Your task to perform on an android device: change keyboard looks Image 0: 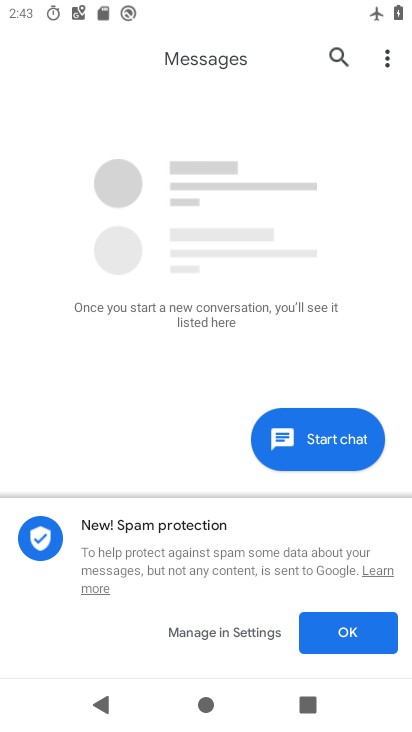
Step 0: press home button
Your task to perform on an android device: change keyboard looks Image 1: 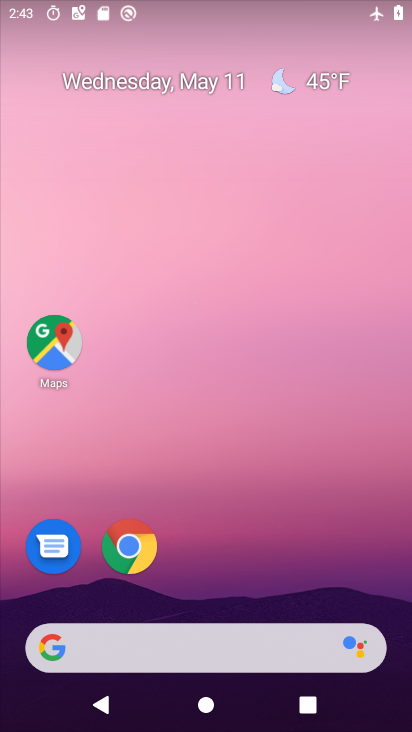
Step 1: drag from (214, 612) to (250, 16)
Your task to perform on an android device: change keyboard looks Image 2: 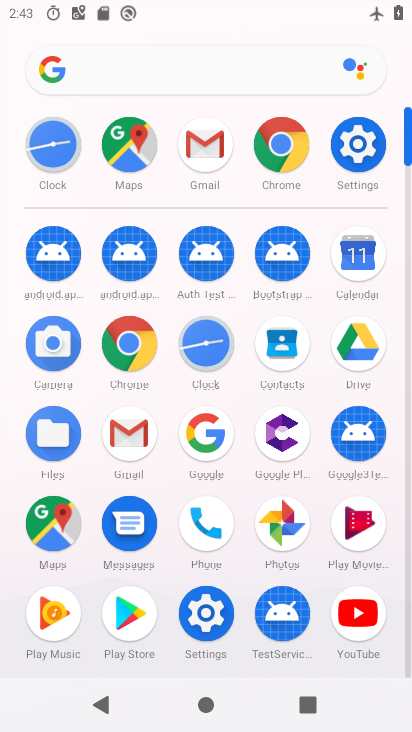
Step 2: click (205, 607)
Your task to perform on an android device: change keyboard looks Image 3: 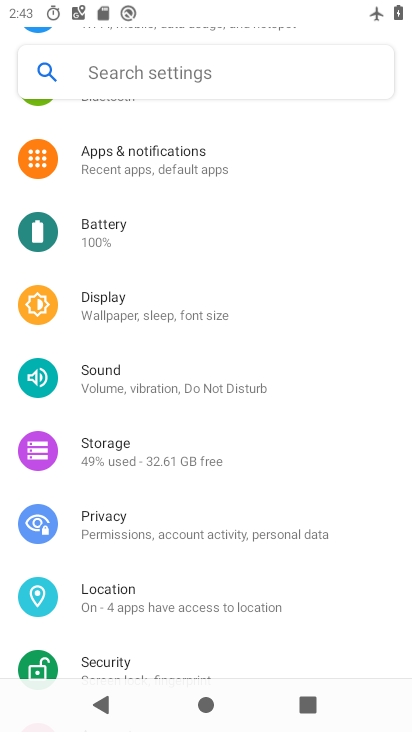
Step 3: drag from (180, 612) to (221, 42)
Your task to perform on an android device: change keyboard looks Image 4: 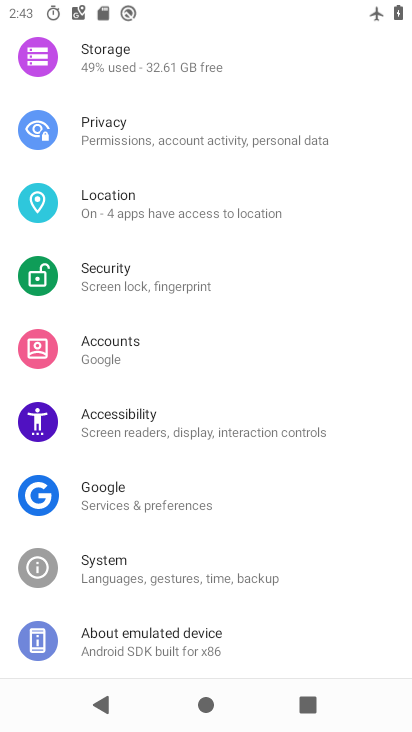
Step 4: click (135, 567)
Your task to perform on an android device: change keyboard looks Image 5: 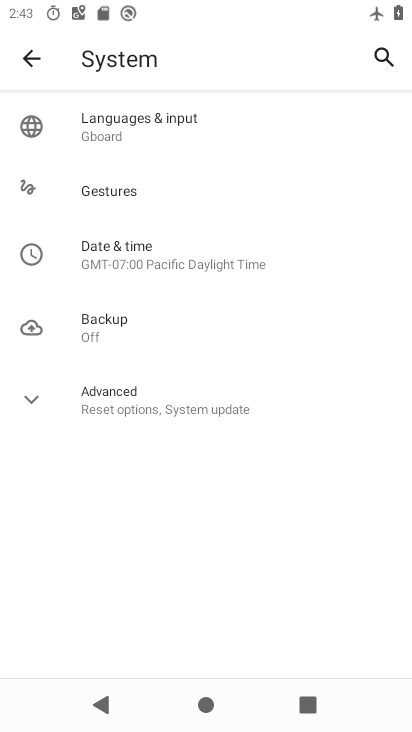
Step 5: click (150, 132)
Your task to perform on an android device: change keyboard looks Image 6: 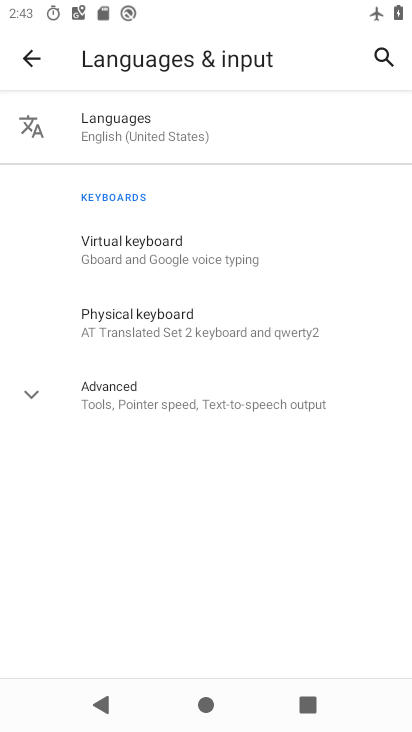
Step 6: click (108, 266)
Your task to perform on an android device: change keyboard looks Image 7: 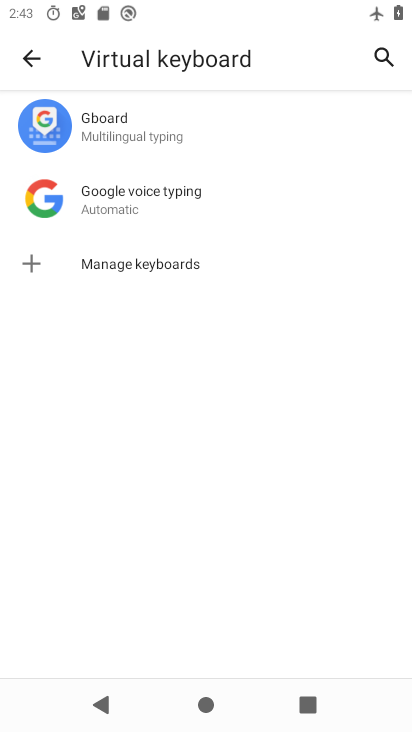
Step 7: click (131, 143)
Your task to perform on an android device: change keyboard looks Image 8: 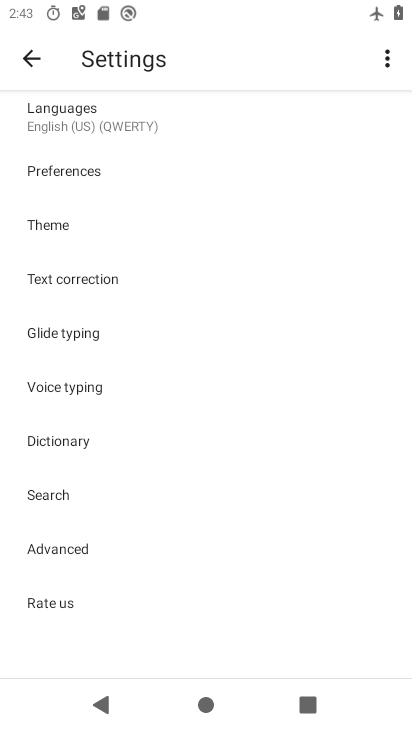
Step 8: click (70, 211)
Your task to perform on an android device: change keyboard looks Image 9: 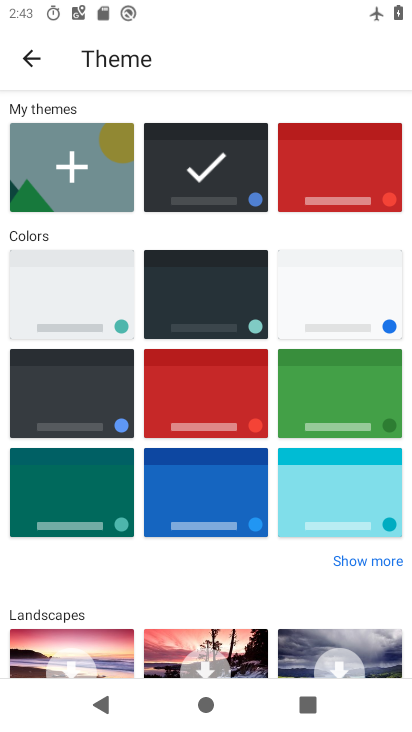
Step 9: click (75, 391)
Your task to perform on an android device: change keyboard looks Image 10: 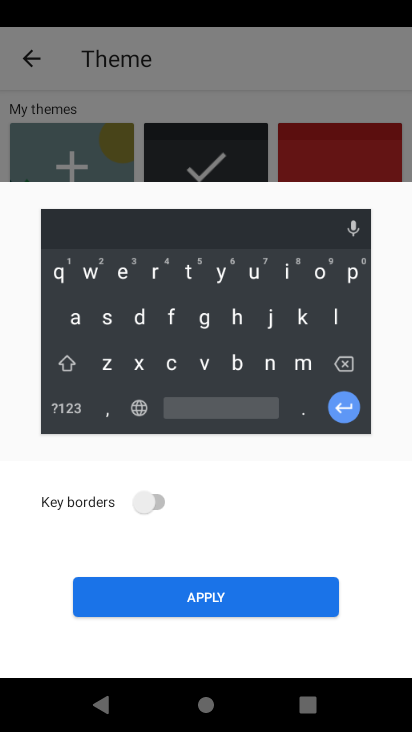
Step 10: click (220, 604)
Your task to perform on an android device: change keyboard looks Image 11: 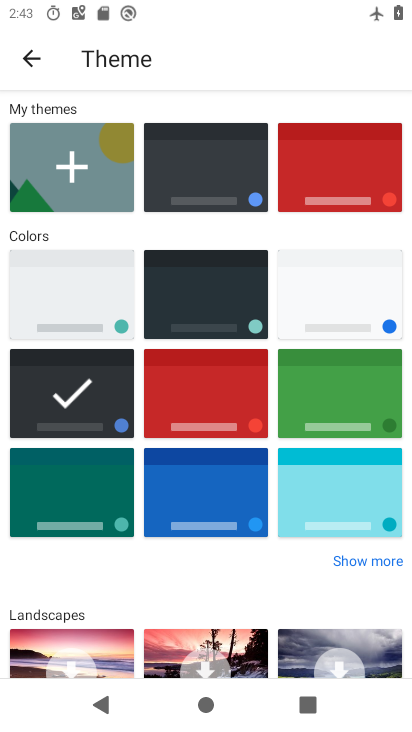
Step 11: task complete